Your task to perform on an android device: read, delete, or share a saved page in the chrome app Image 0: 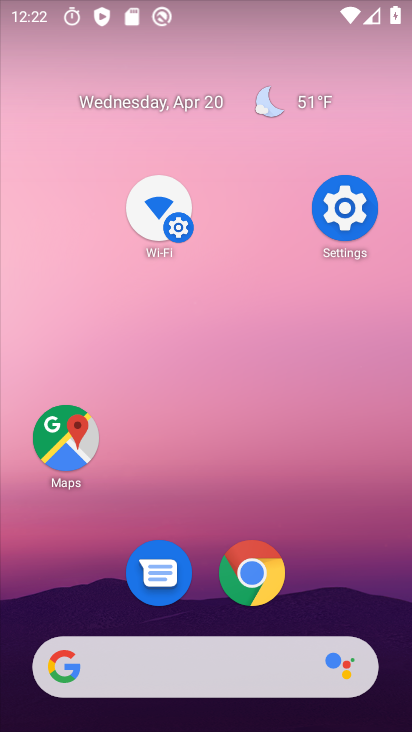
Step 0: click (279, 567)
Your task to perform on an android device: read, delete, or share a saved page in the chrome app Image 1: 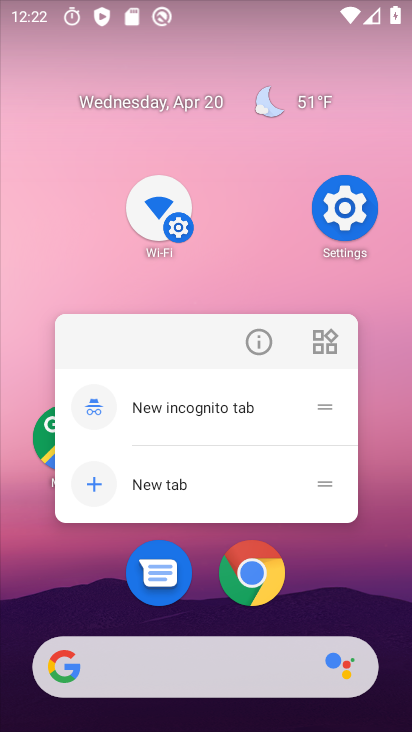
Step 1: click (255, 570)
Your task to perform on an android device: read, delete, or share a saved page in the chrome app Image 2: 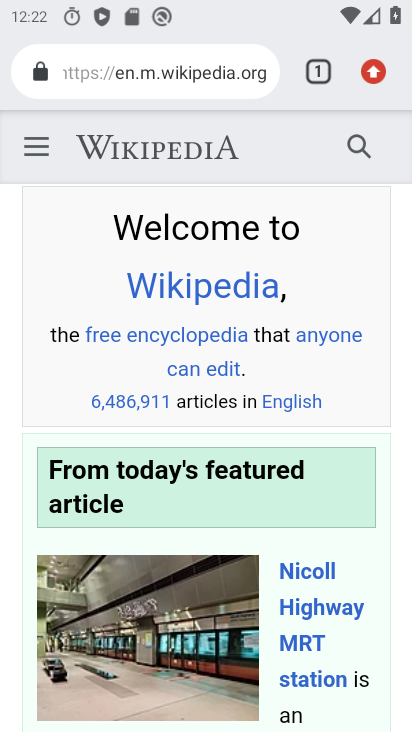
Step 2: click (374, 74)
Your task to perform on an android device: read, delete, or share a saved page in the chrome app Image 3: 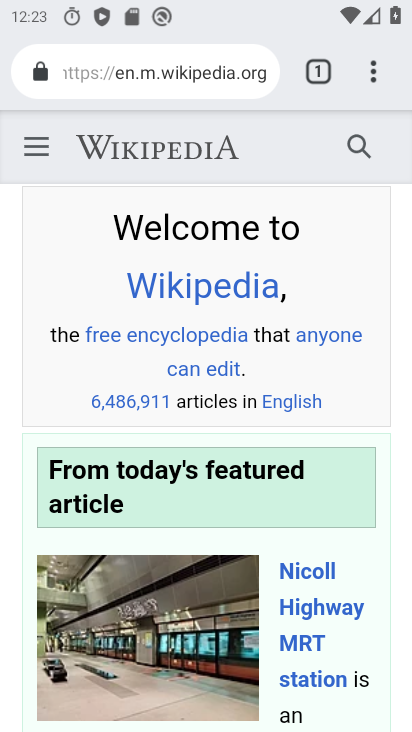
Step 3: task complete